Your task to perform on an android device: toggle notification dots Image 0: 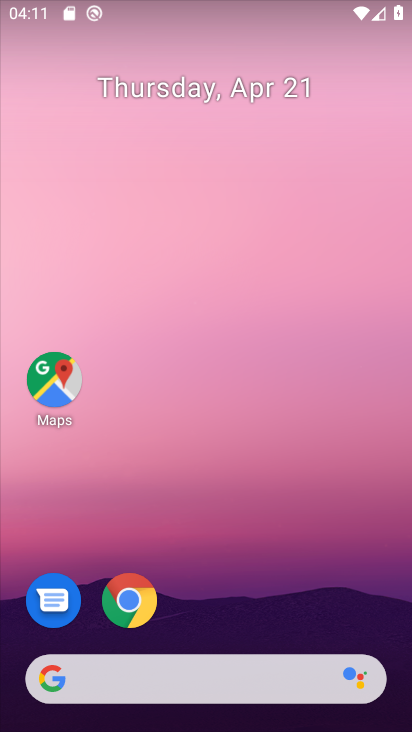
Step 0: drag from (373, 608) to (404, 6)
Your task to perform on an android device: toggle notification dots Image 1: 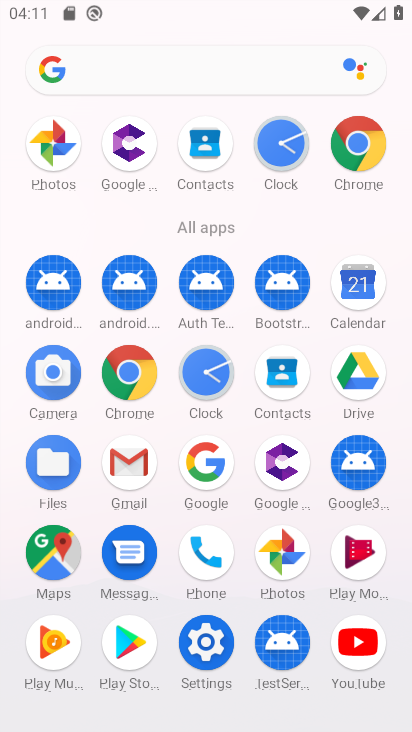
Step 1: click (204, 645)
Your task to perform on an android device: toggle notification dots Image 2: 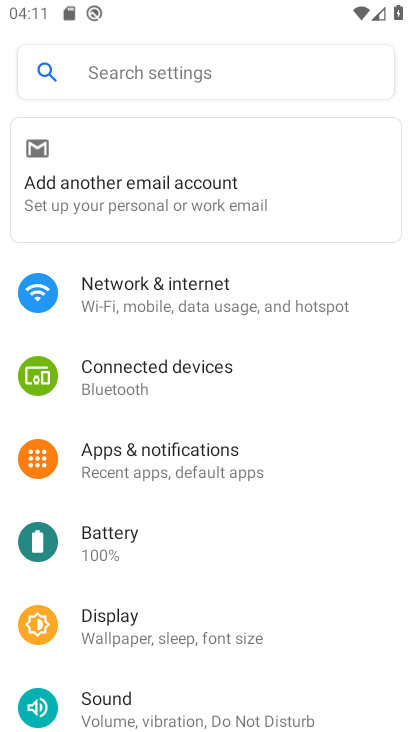
Step 2: click (176, 454)
Your task to perform on an android device: toggle notification dots Image 3: 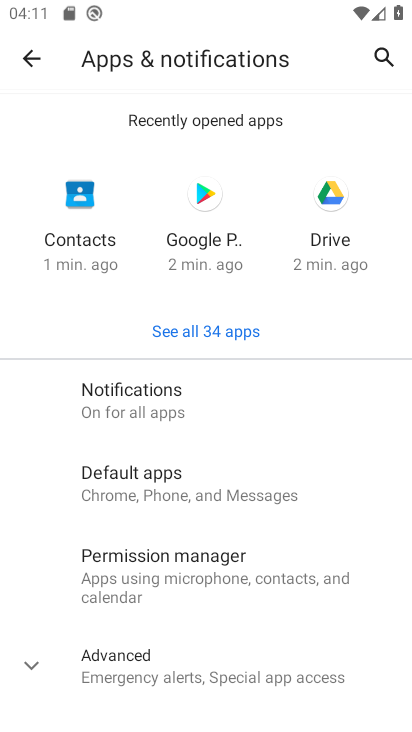
Step 3: click (144, 414)
Your task to perform on an android device: toggle notification dots Image 4: 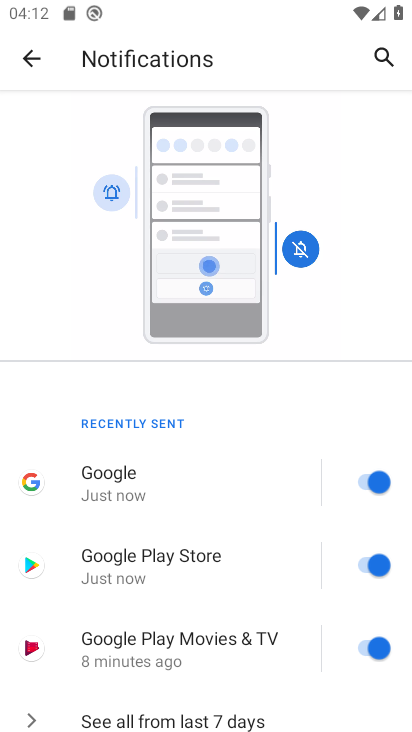
Step 4: drag from (213, 601) to (161, 85)
Your task to perform on an android device: toggle notification dots Image 5: 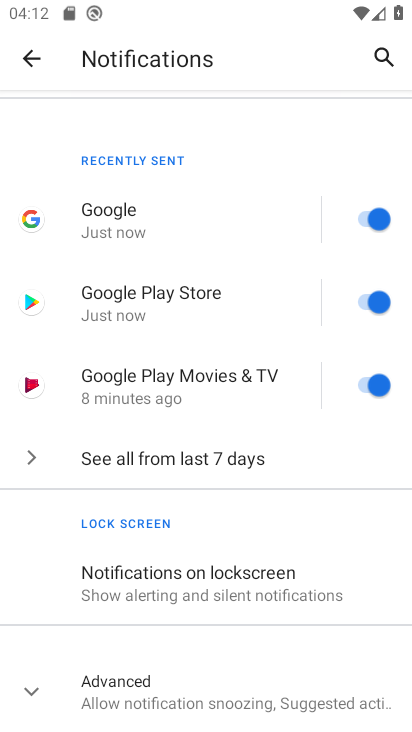
Step 5: drag from (188, 543) to (153, 181)
Your task to perform on an android device: toggle notification dots Image 6: 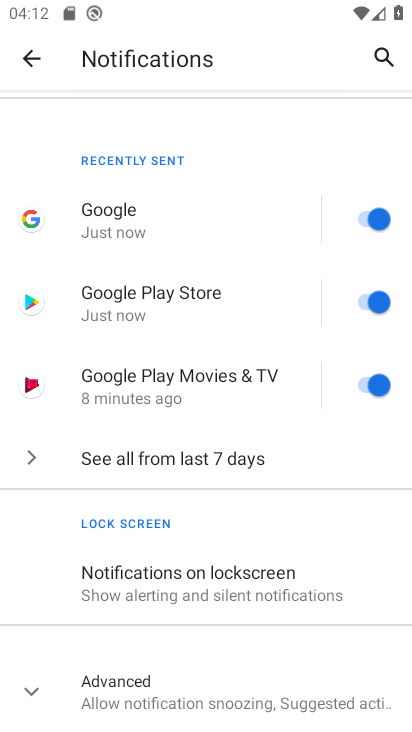
Step 6: click (31, 704)
Your task to perform on an android device: toggle notification dots Image 7: 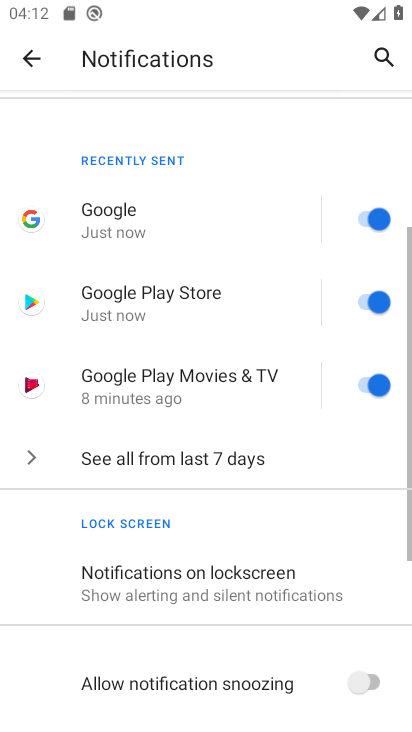
Step 7: drag from (190, 659) to (159, 146)
Your task to perform on an android device: toggle notification dots Image 8: 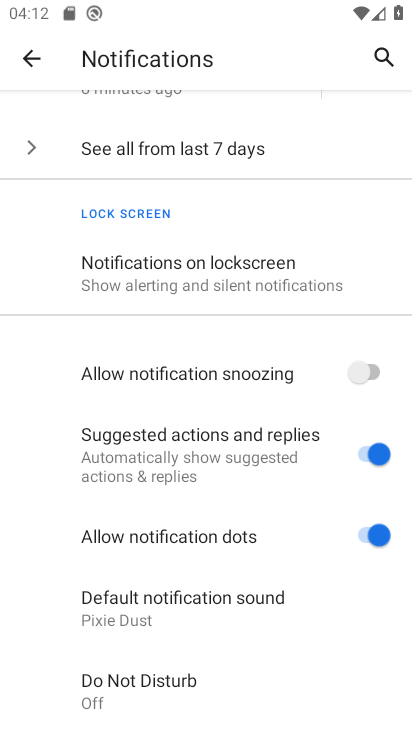
Step 8: click (368, 532)
Your task to perform on an android device: toggle notification dots Image 9: 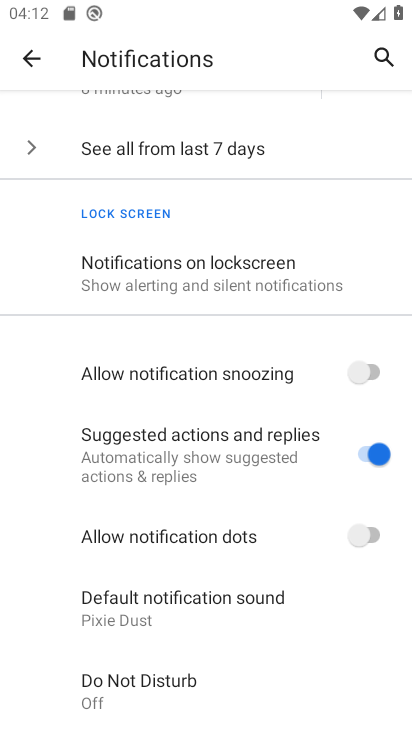
Step 9: task complete